Your task to perform on an android device: Open sound settings Image 0: 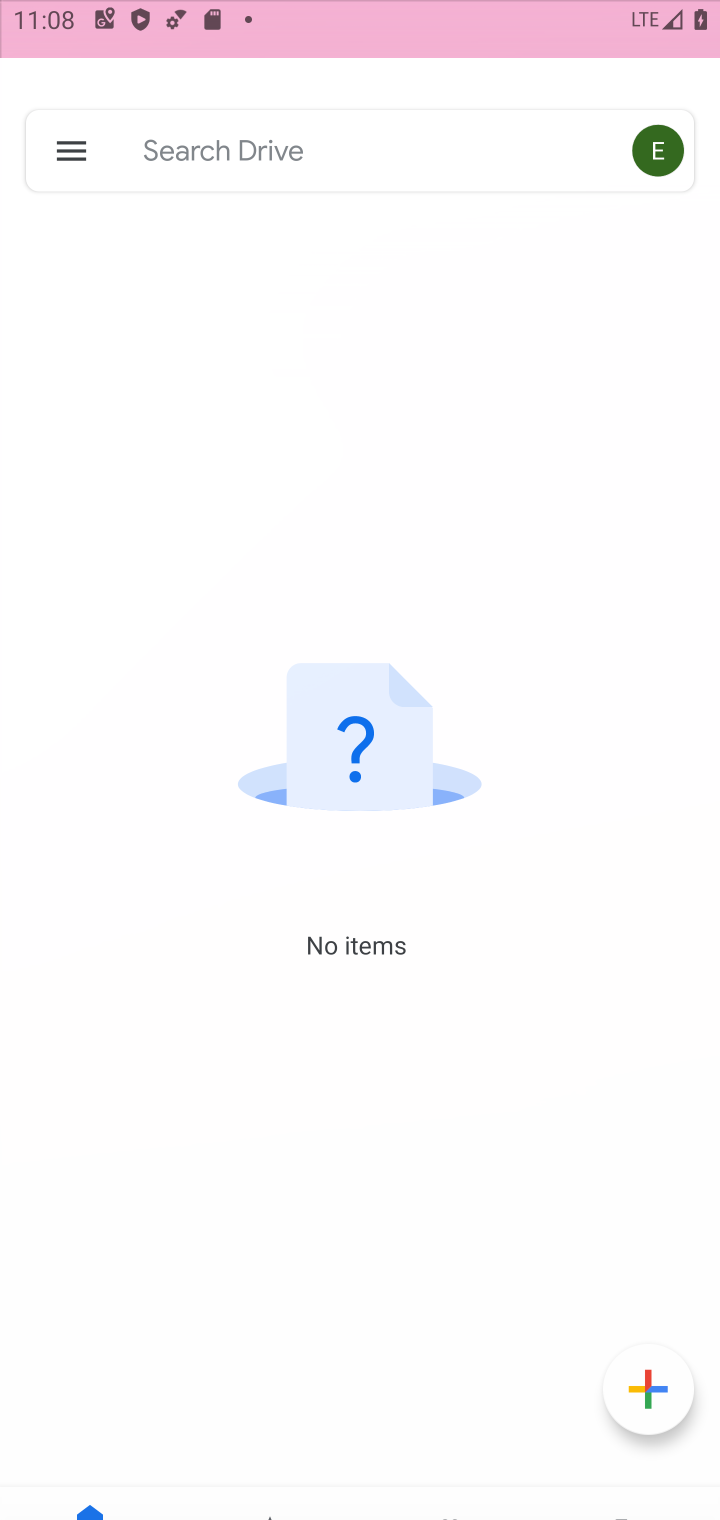
Step 0: press back button
Your task to perform on an android device: Open sound settings Image 1: 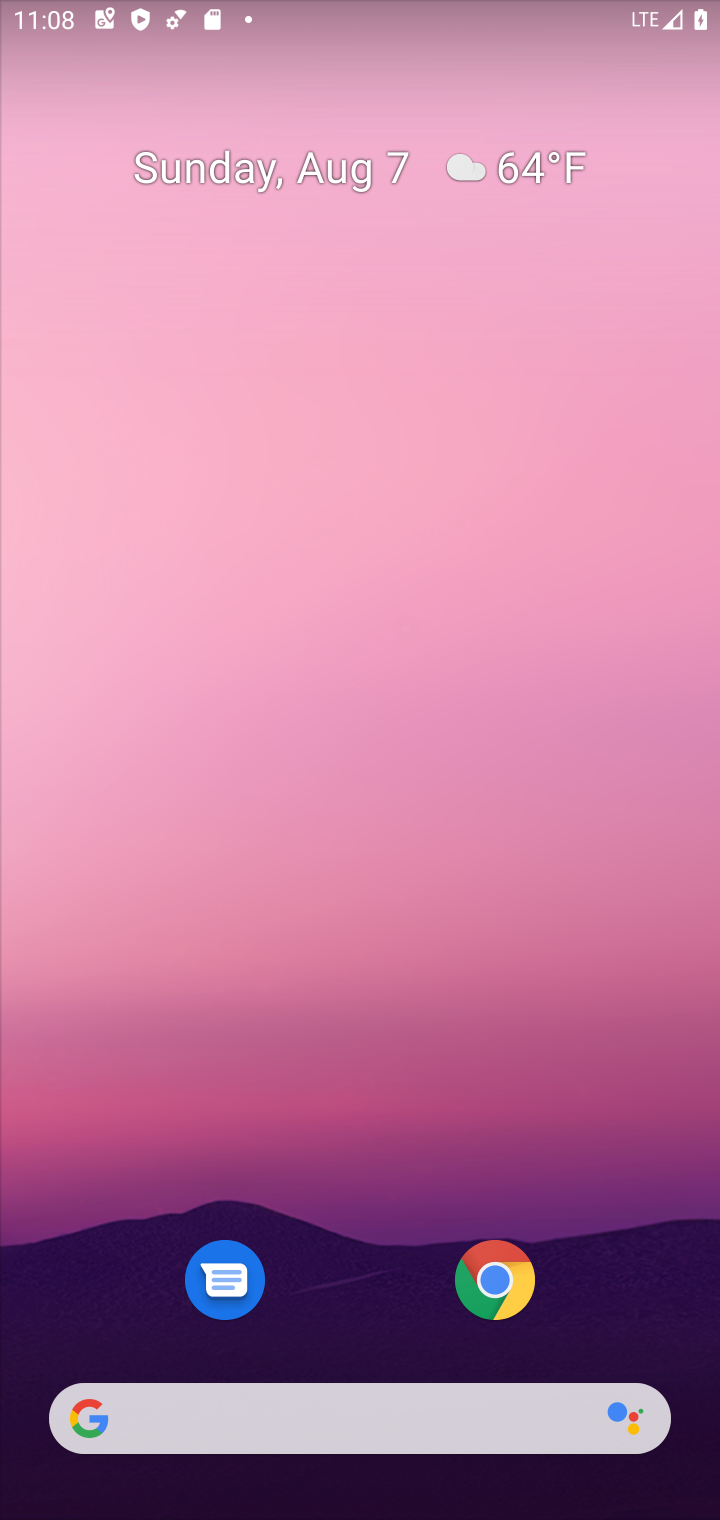
Step 1: drag from (372, 1276) to (400, 5)
Your task to perform on an android device: Open sound settings Image 2: 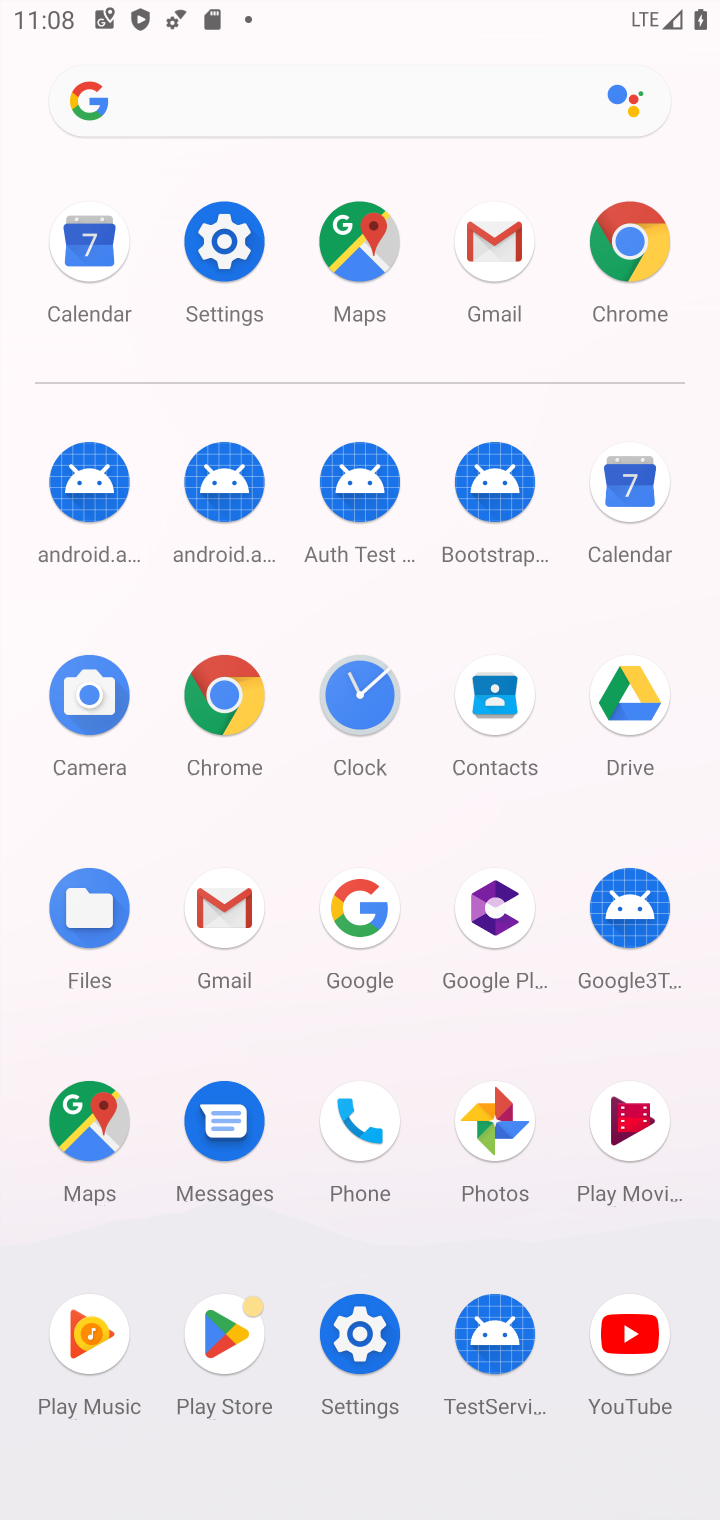
Step 2: click (222, 256)
Your task to perform on an android device: Open sound settings Image 3: 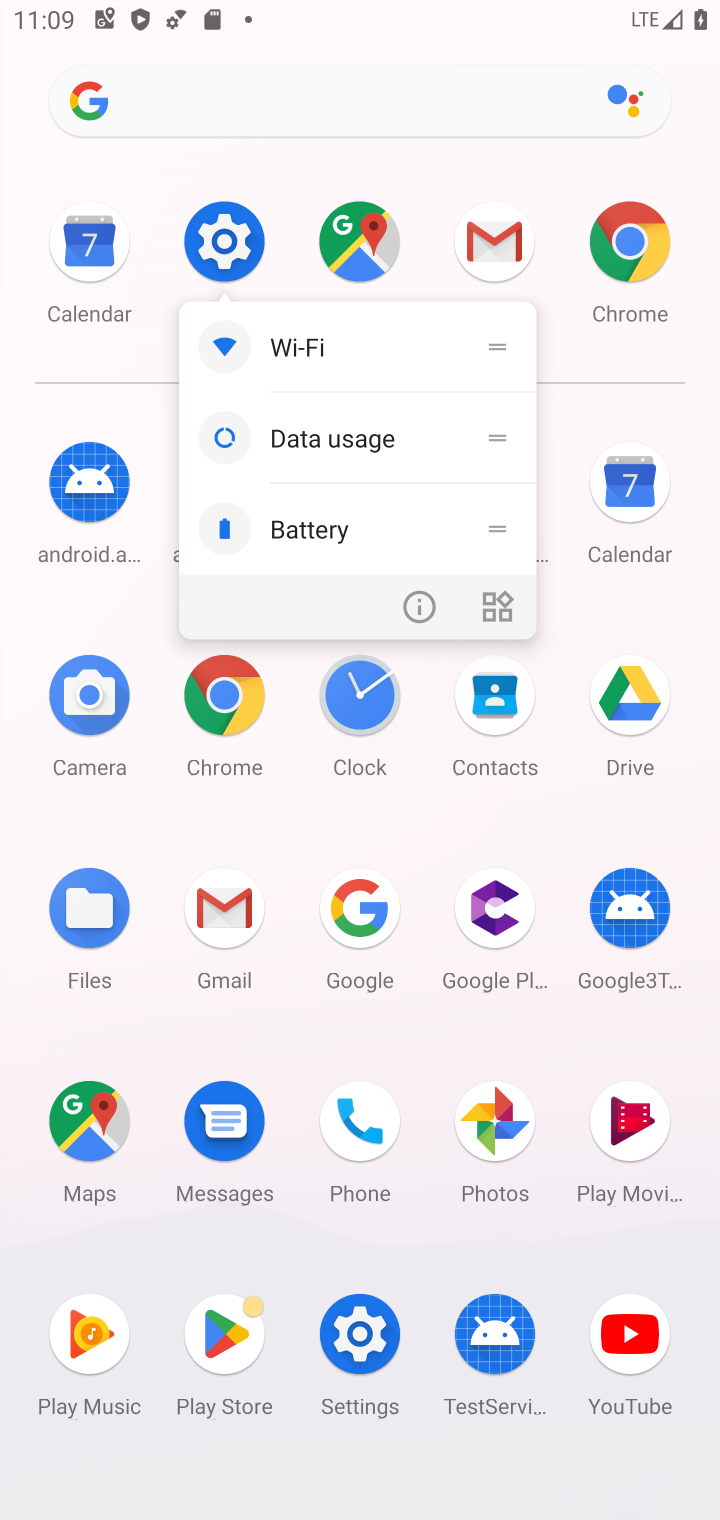
Step 3: click (214, 251)
Your task to perform on an android device: Open sound settings Image 4: 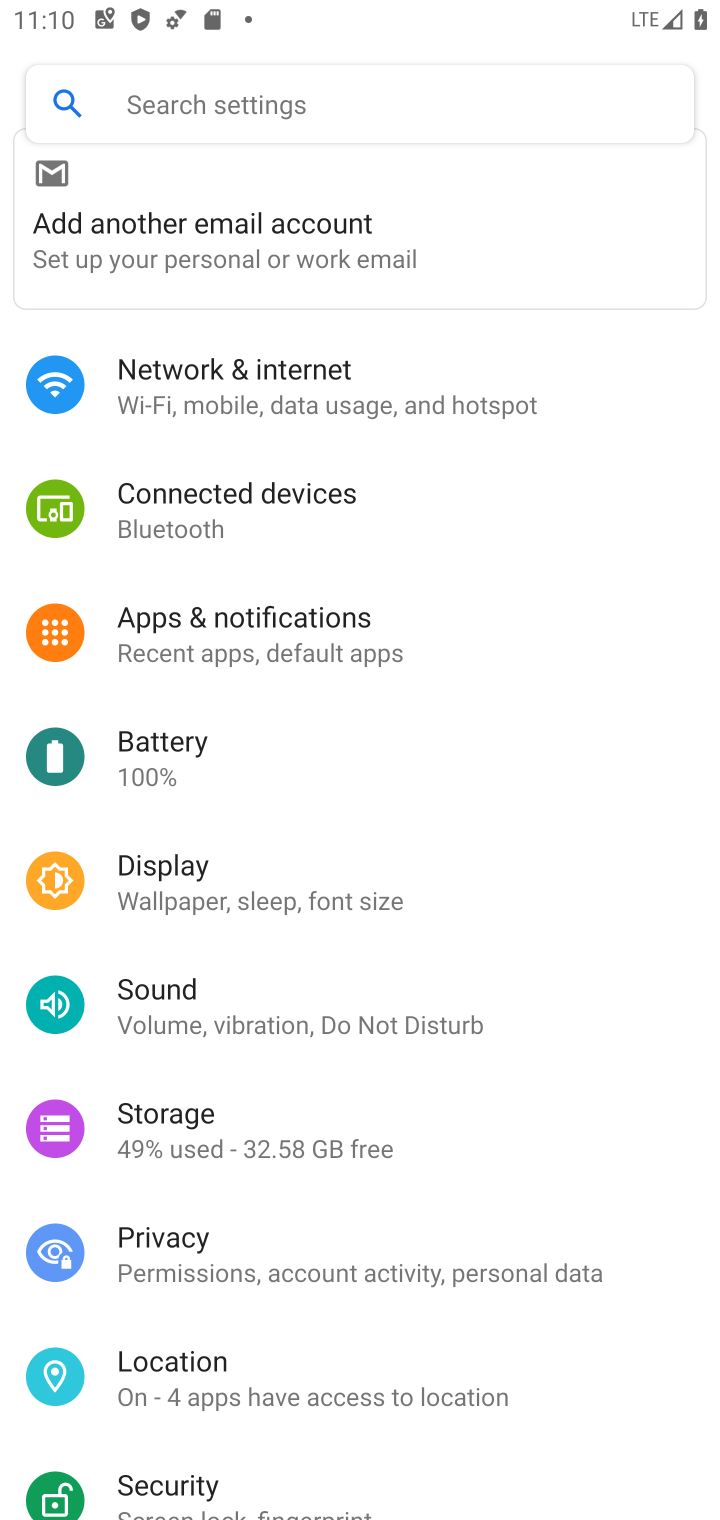
Step 4: click (244, 1003)
Your task to perform on an android device: Open sound settings Image 5: 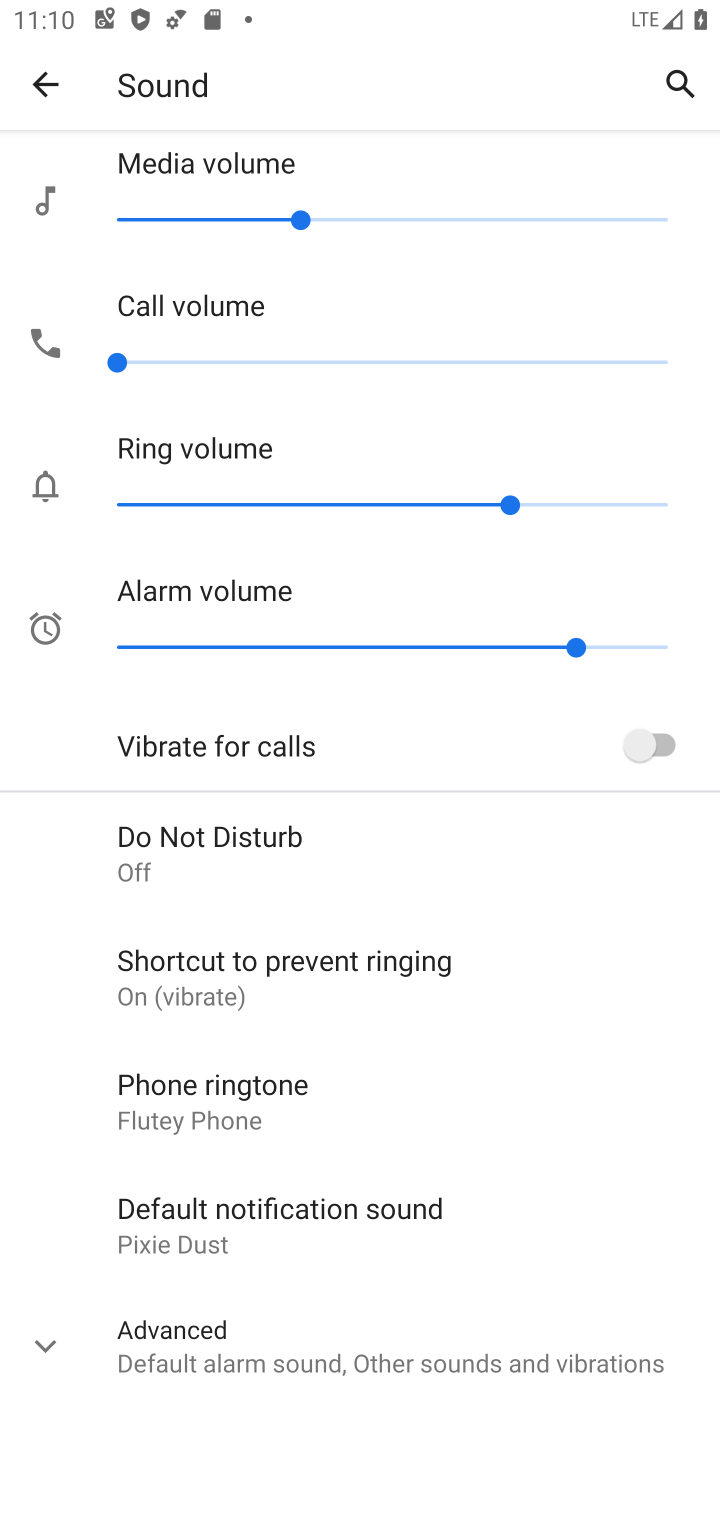
Step 5: task complete